Your task to perform on an android device: snooze an email in the gmail app Image 0: 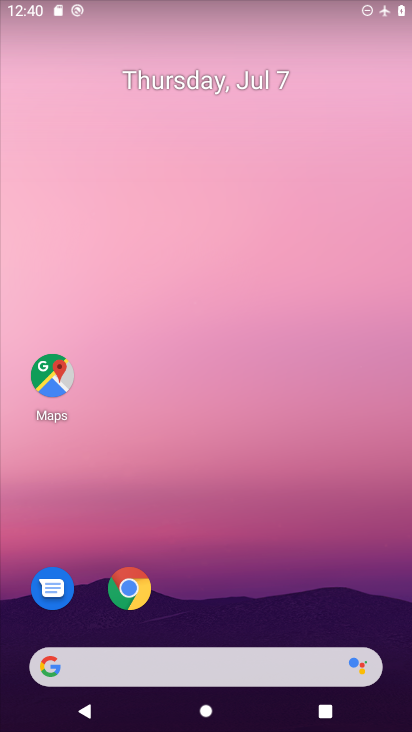
Step 0: drag from (227, 631) to (285, 3)
Your task to perform on an android device: snooze an email in the gmail app Image 1: 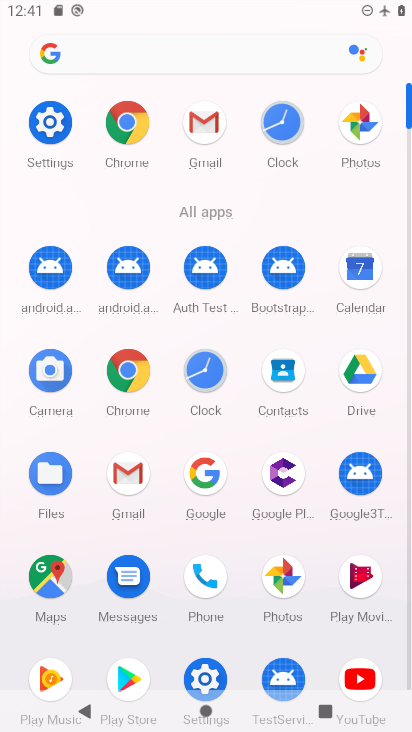
Step 1: click (132, 478)
Your task to perform on an android device: snooze an email in the gmail app Image 2: 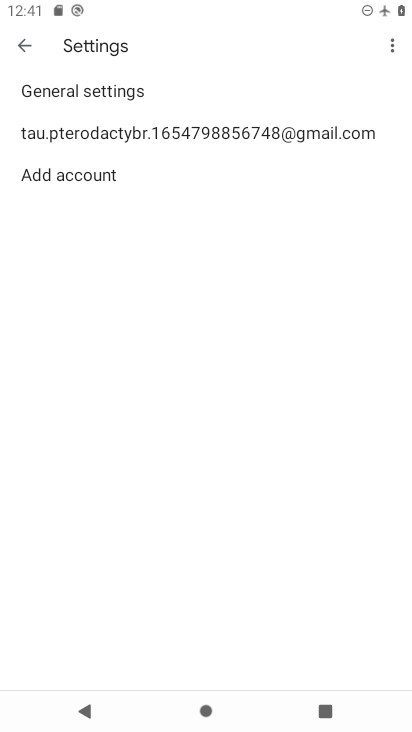
Step 2: press back button
Your task to perform on an android device: snooze an email in the gmail app Image 3: 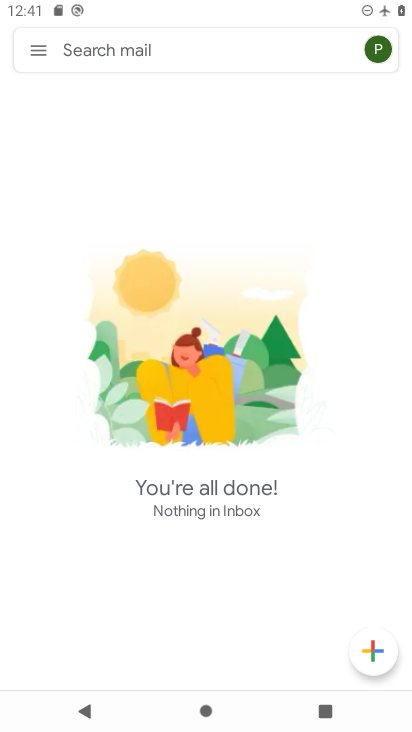
Step 3: click (24, 53)
Your task to perform on an android device: snooze an email in the gmail app Image 4: 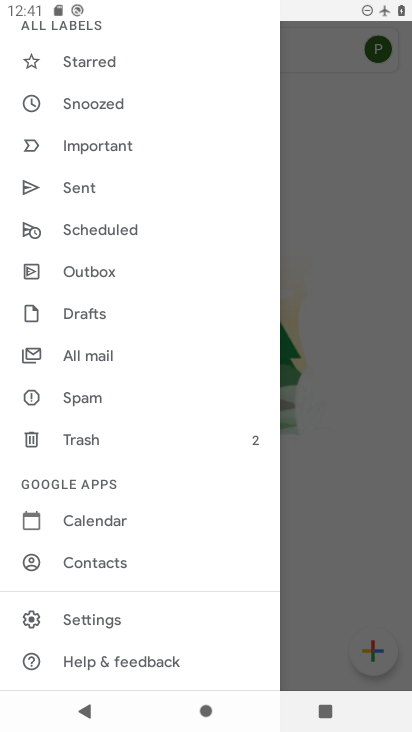
Step 4: click (112, 97)
Your task to perform on an android device: snooze an email in the gmail app Image 5: 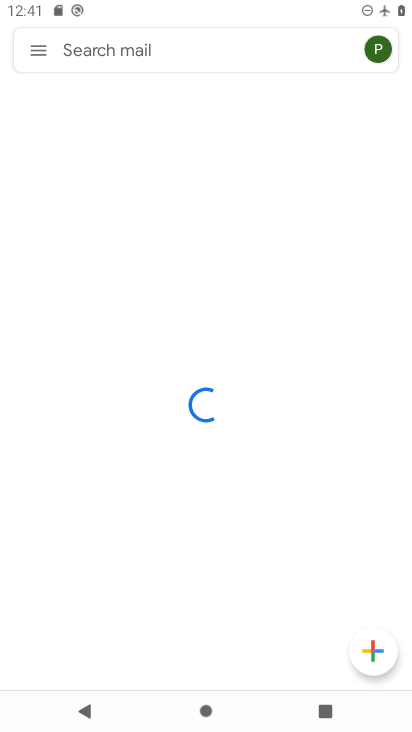
Step 5: task complete